Your task to perform on an android device: Open the web browser Image 0: 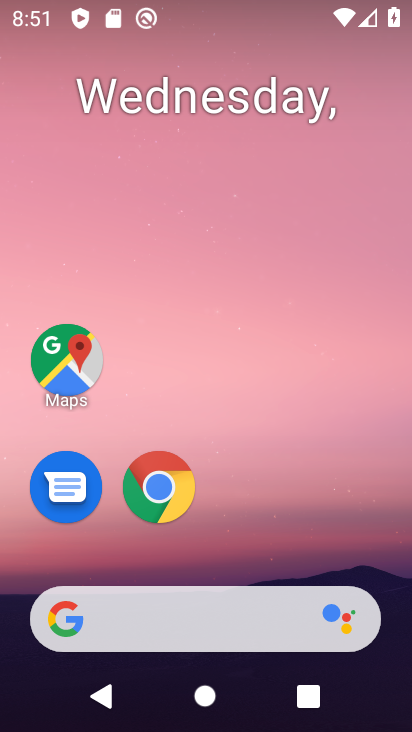
Step 0: click (161, 488)
Your task to perform on an android device: Open the web browser Image 1: 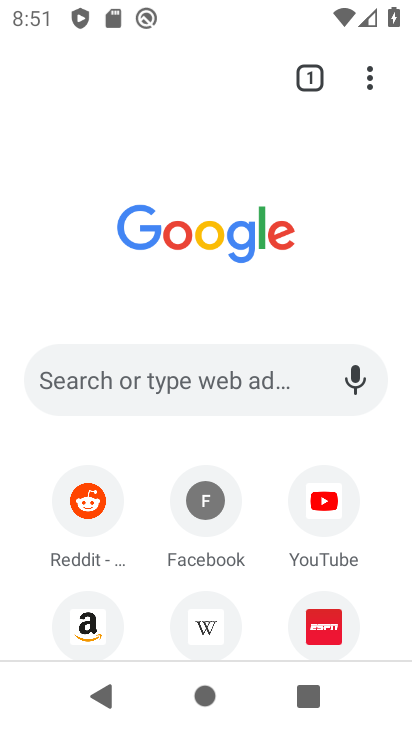
Step 1: task complete